Your task to perform on an android device: see tabs open on other devices in the chrome app Image 0: 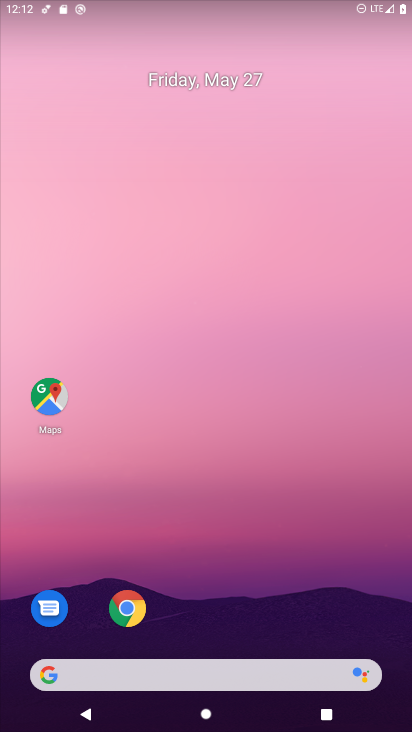
Step 0: press home button
Your task to perform on an android device: see tabs open on other devices in the chrome app Image 1: 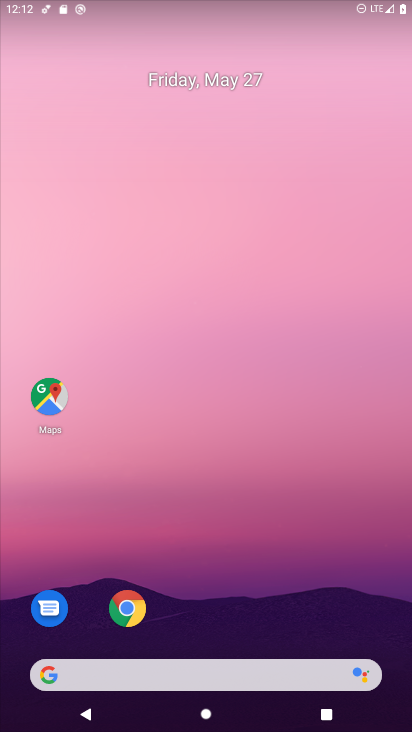
Step 1: click (130, 606)
Your task to perform on an android device: see tabs open on other devices in the chrome app Image 2: 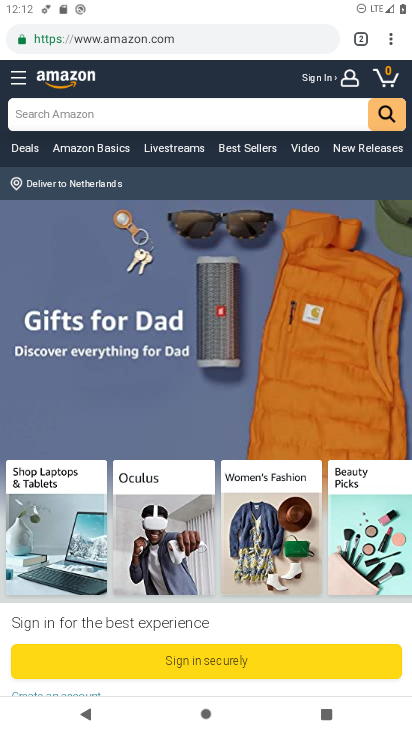
Step 2: task complete